Your task to perform on an android device: stop showing notifications on the lock screen Image 0: 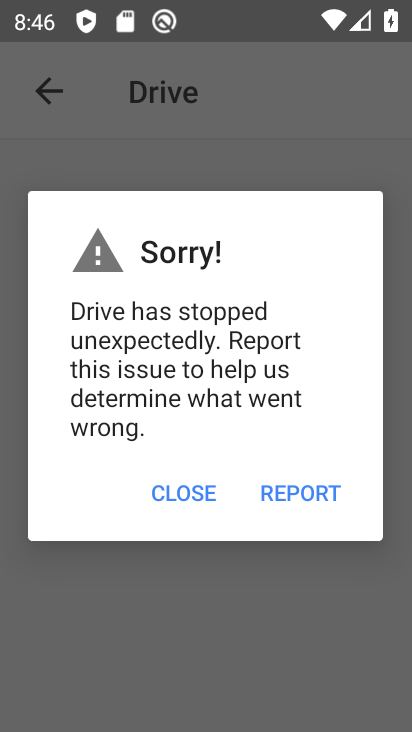
Step 0: press home button
Your task to perform on an android device: stop showing notifications on the lock screen Image 1: 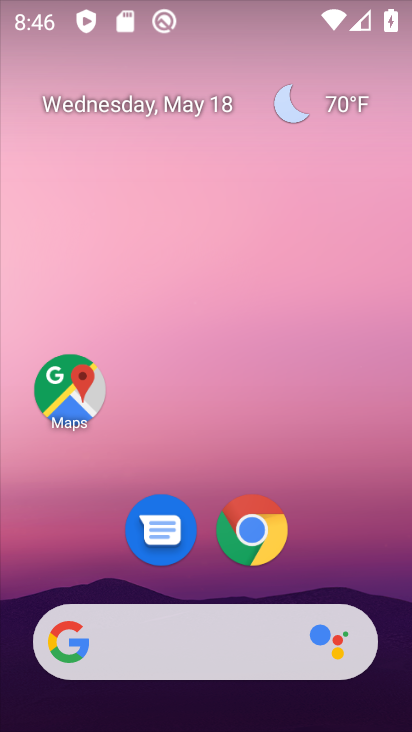
Step 1: drag from (330, 565) to (201, 173)
Your task to perform on an android device: stop showing notifications on the lock screen Image 2: 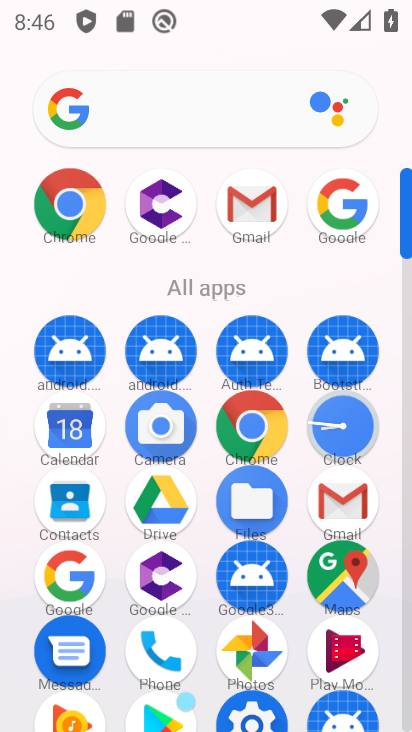
Step 2: drag from (201, 560) to (209, 380)
Your task to perform on an android device: stop showing notifications on the lock screen Image 3: 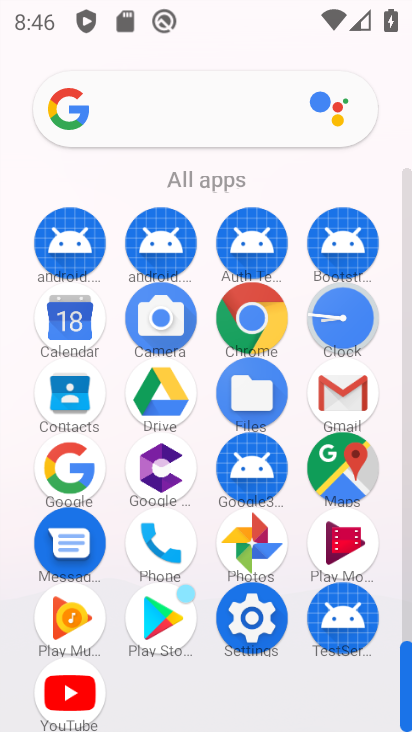
Step 3: click (253, 617)
Your task to perform on an android device: stop showing notifications on the lock screen Image 4: 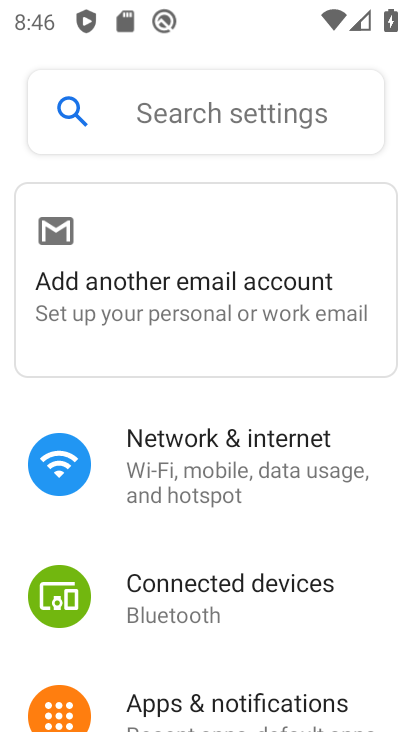
Step 4: drag from (236, 636) to (248, 538)
Your task to perform on an android device: stop showing notifications on the lock screen Image 5: 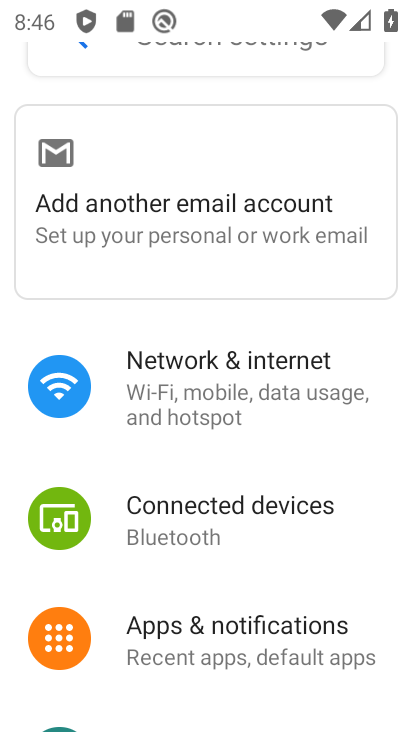
Step 5: drag from (238, 590) to (289, 483)
Your task to perform on an android device: stop showing notifications on the lock screen Image 6: 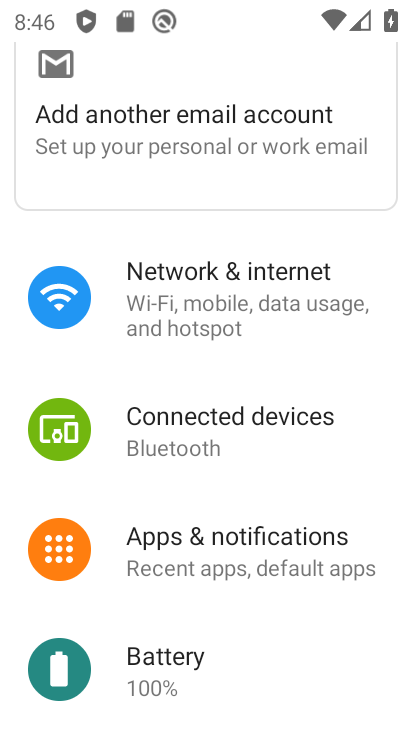
Step 6: drag from (242, 612) to (254, 498)
Your task to perform on an android device: stop showing notifications on the lock screen Image 7: 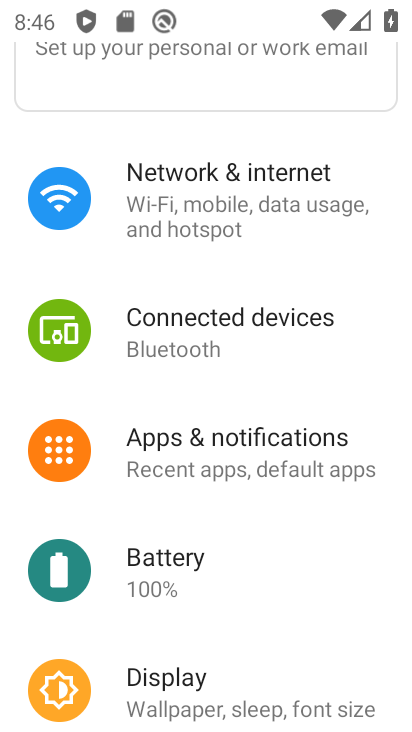
Step 7: drag from (216, 628) to (264, 496)
Your task to perform on an android device: stop showing notifications on the lock screen Image 8: 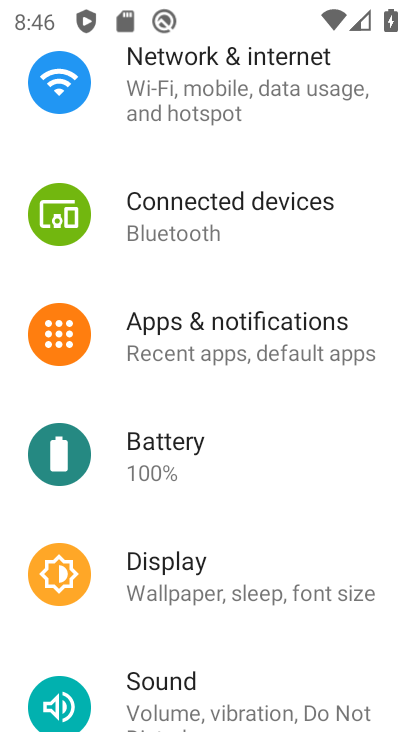
Step 8: click (235, 330)
Your task to perform on an android device: stop showing notifications on the lock screen Image 9: 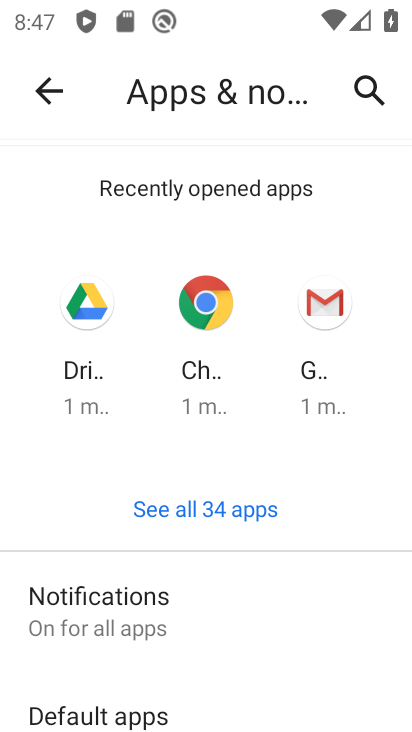
Step 9: click (140, 600)
Your task to perform on an android device: stop showing notifications on the lock screen Image 10: 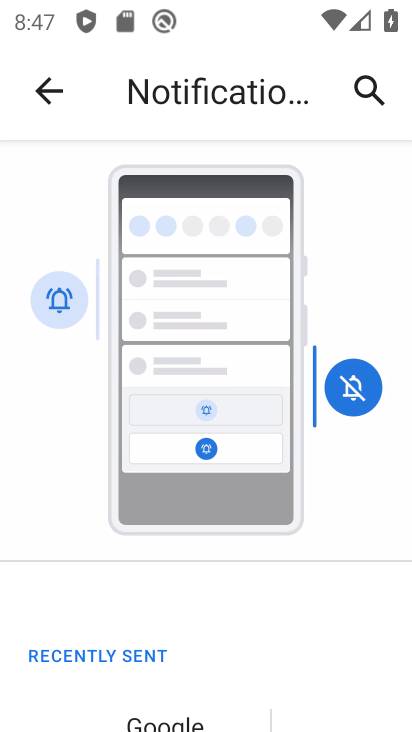
Step 10: drag from (232, 636) to (286, 502)
Your task to perform on an android device: stop showing notifications on the lock screen Image 11: 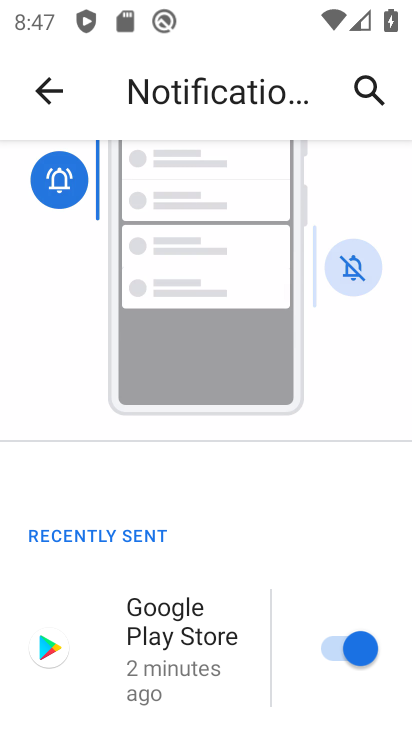
Step 11: drag from (234, 575) to (275, 480)
Your task to perform on an android device: stop showing notifications on the lock screen Image 12: 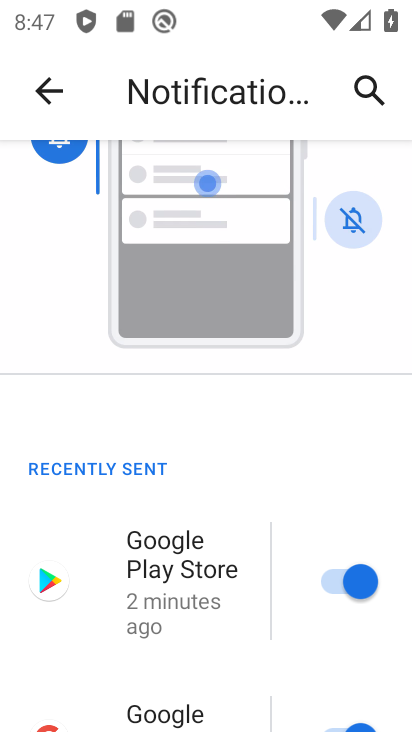
Step 12: drag from (185, 674) to (268, 540)
Your task to perform on an android device: stop showing notifications on the lock screen Image 13: 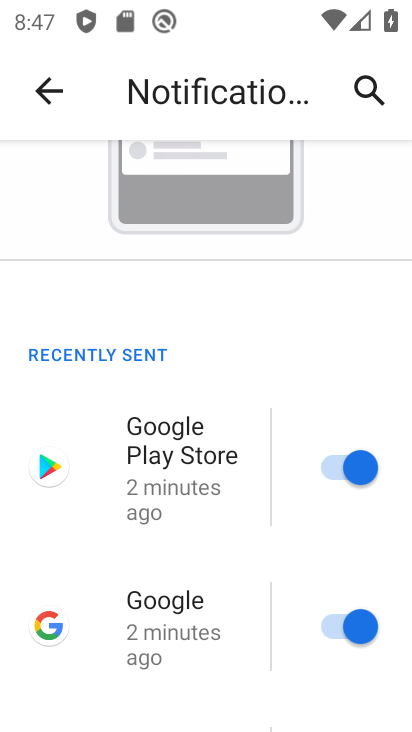
Step 13: drag from (181, 695) to (261, 501)
Your task to perform on an android device: stop showing notifications on the lock screen Image 14: 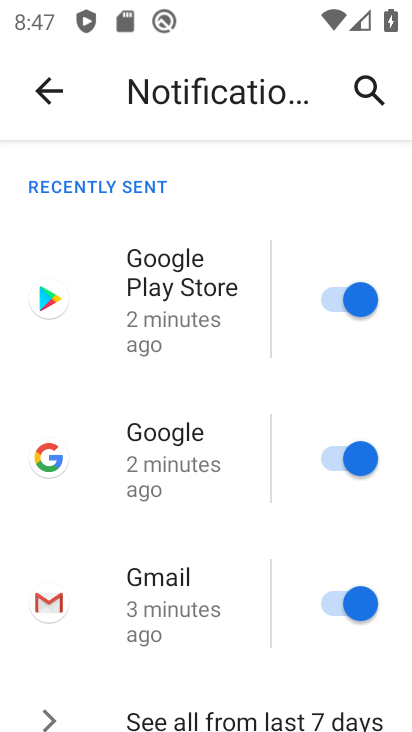
Step 14: drag from (168, 526) to (249, 359)
Your task to perform on an android device: stop showing notifications on the lock screen Image 15: 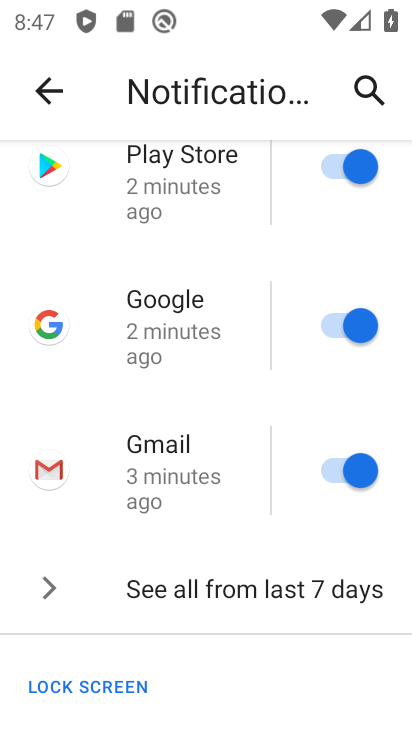
Step 15: drag from (144, 546) to (236, 407)
Your task to perform on an android device: stop showing notifications on the lock screen Image 16: 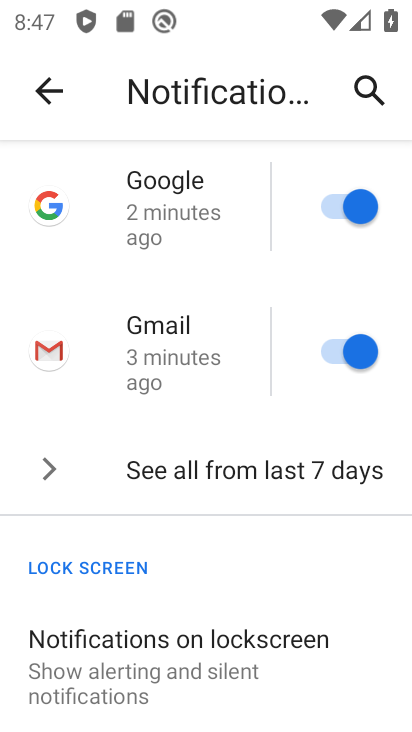
Step 16: drag from (152, 574) to (251, 461)
Your task to perform on an android device: stop showing notifications on the lock screen Image 17: 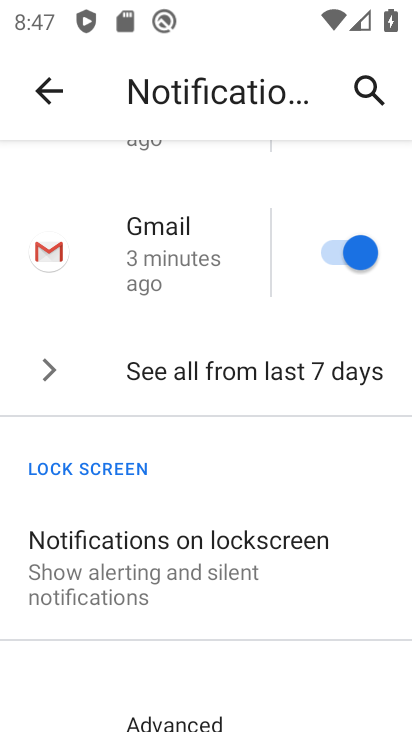
Step 17: click (187, 536)
Your task to perform on an android device: stop showing notifications on the lock screen Image 18: 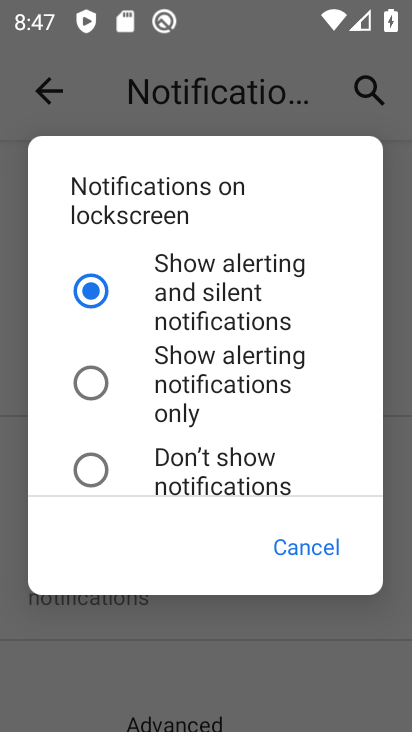
Step 18: click (97, 475)
Your task to perform on an android device: stop showing notifications on the lock screen Image 19: 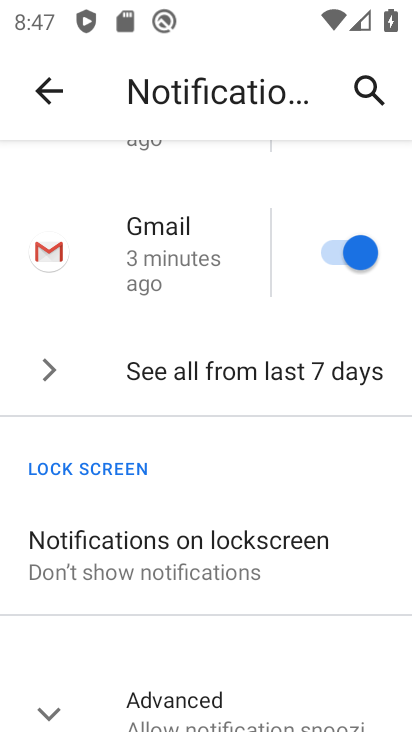
Step 19: task complete